Your task to perform on an android device: Show me the alarms in the clock app Image 0: 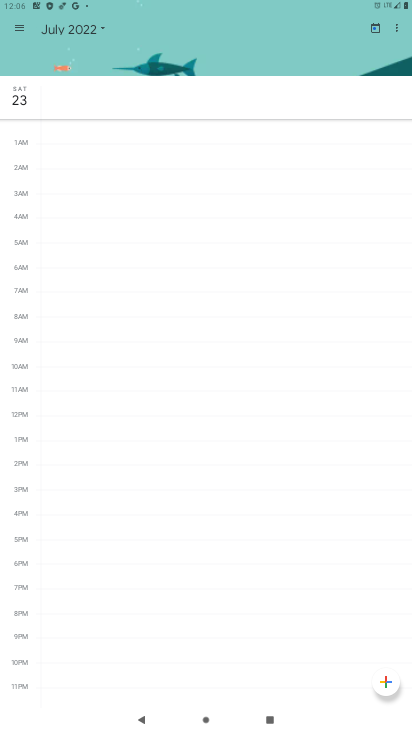
Step 0: press home button
Your task to perform on an android device: Show me the alarms in the clock app Image 1: 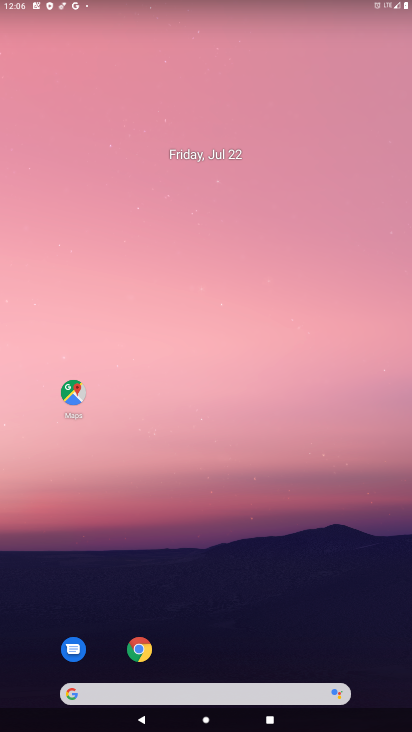
Step 1: drag from (320, 618) to (193, 48)
Your task to perform on an android device: Show me the alarms in the clock app Image 2: 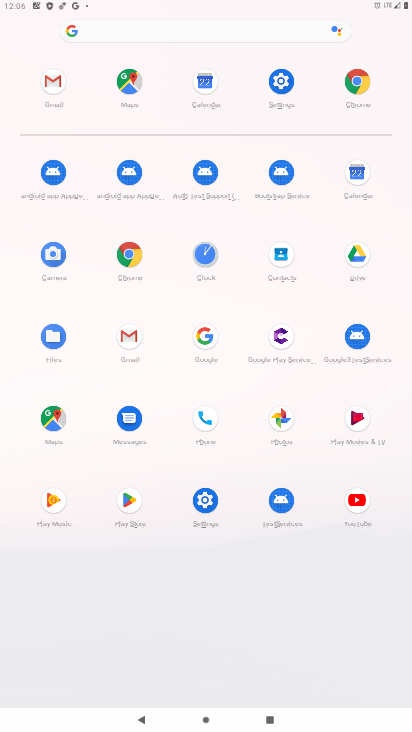
Step 2: click (210, 259)
Your task to perform on an android device: Show me the alarms in the clock app Image 3: 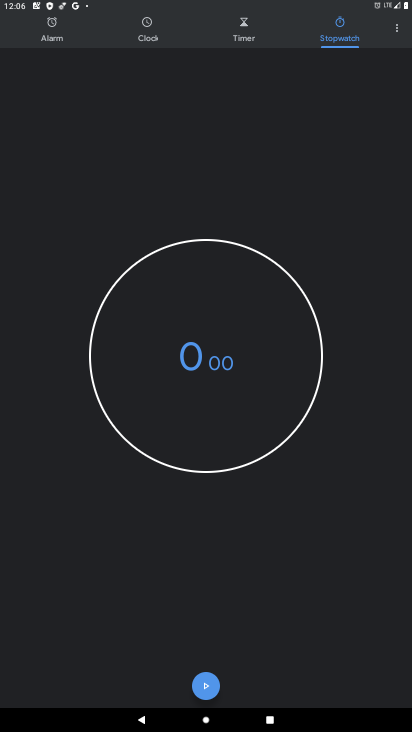
Step 3: click (64, 35)
Your task to perform on an android device: Show me the alarms in the clock app Image 4: 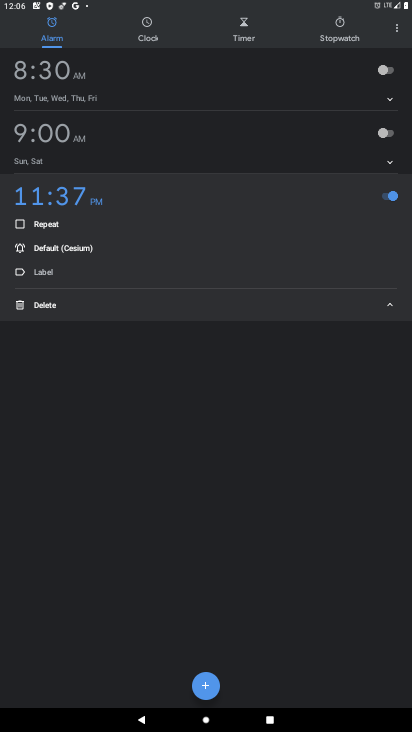
Step 4: task complete